Your task to perform on an android device: Go to internet settings Image 0: 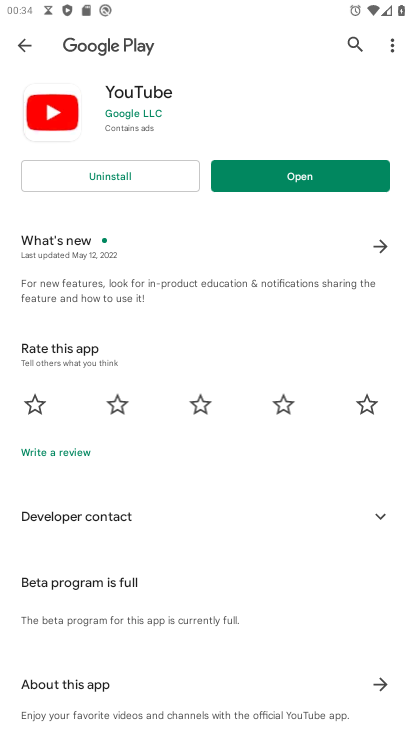
Step 0: press home button
Your task to perform on an android device: Go to internet settings Image 1: 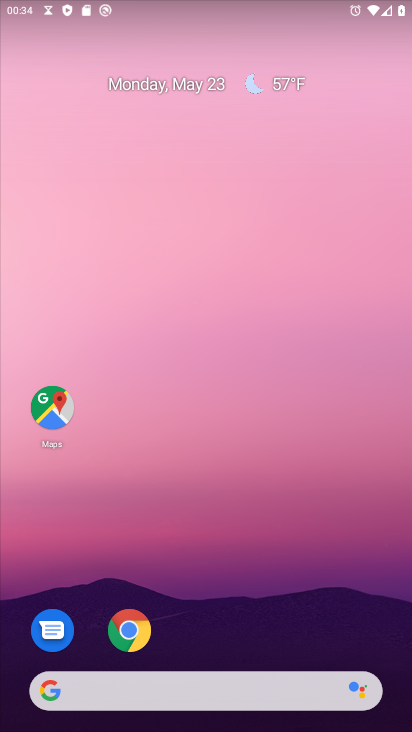
Step 1: drag from (302, 580) to (161, 18)
Your task to perform on an android device: Go to internet settings Image 2: 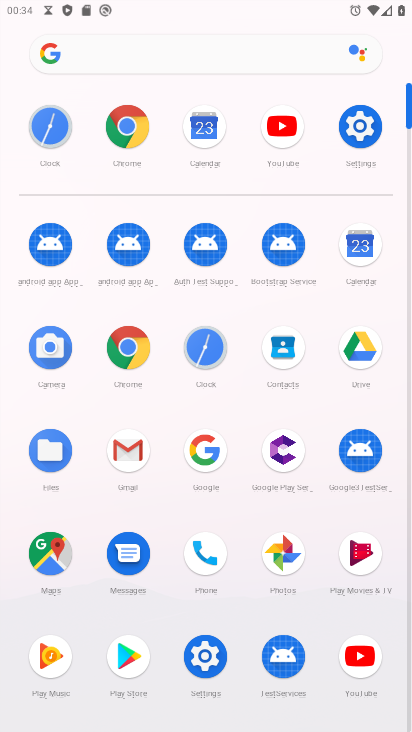
Step 2: click (375, 121)
Your task to perform on an android device: Go to internet settings Image 3: 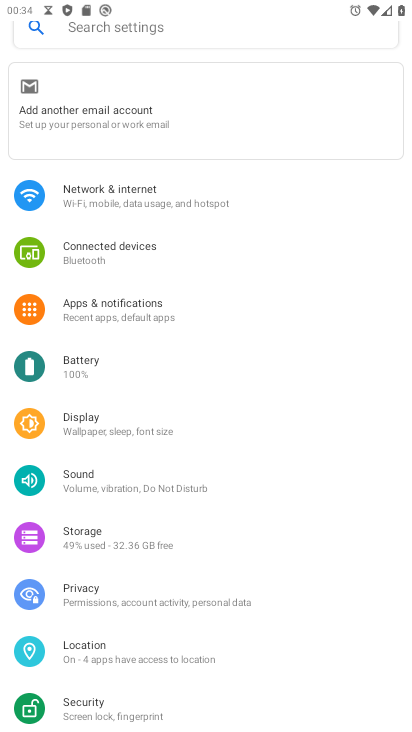
Step 3: click (141, 189)
Your task to perform on an android device: Go to internet settings Image 4: 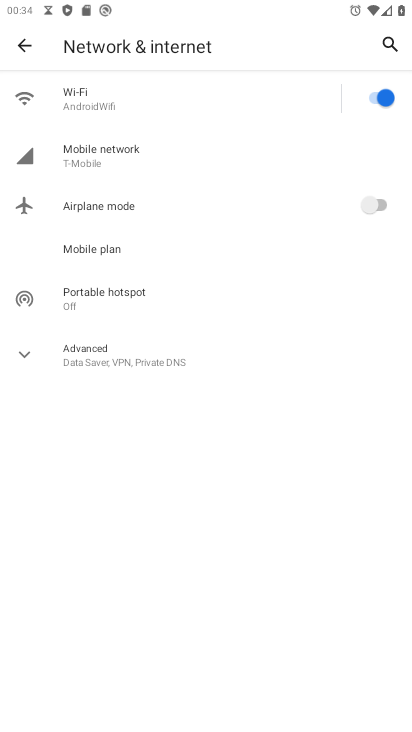
Step 4: task complete